Your task to perform on an android device: What's the weather today? Image 0: 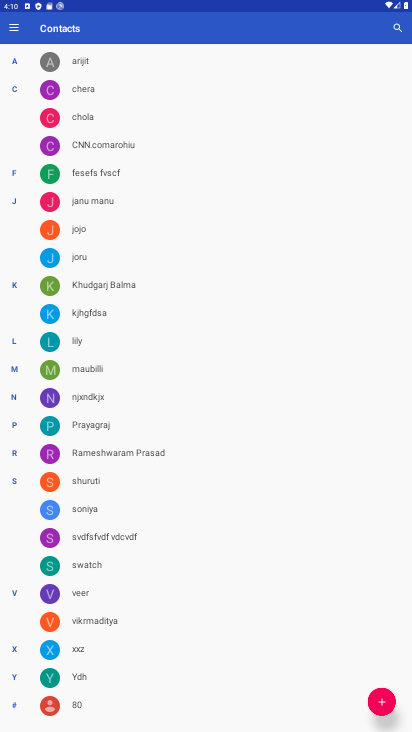
Step 0: press home button
Your task to perform on an android device: What's the weather today? Image 1: 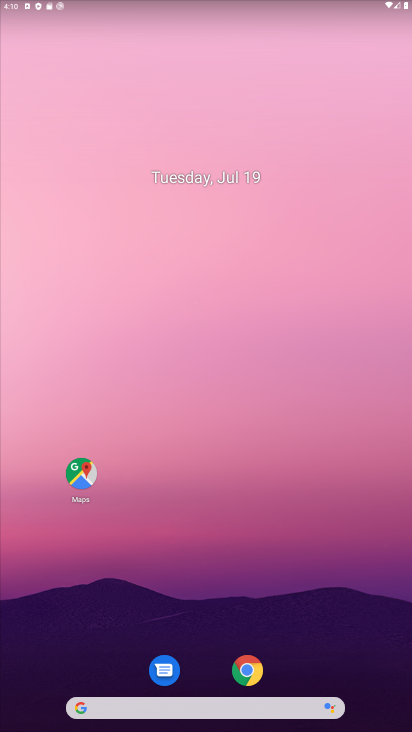
Step 1: drag from (219, 703) to (264, 119)
Your task to perform on an android device: What's the weather today? Image 2: 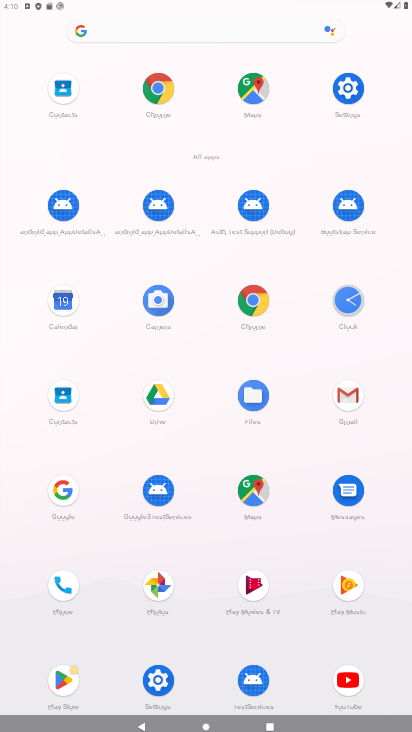
Step 2: click (244, 296)
Your task to perform on an android device: What's the weather today? Image 3: 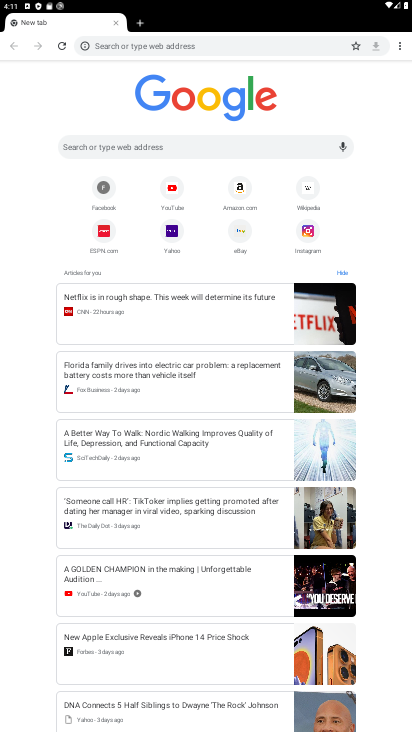
Step 3: click (223, 42)
Your task to perform on an android device: What's the weather today? Image 4: 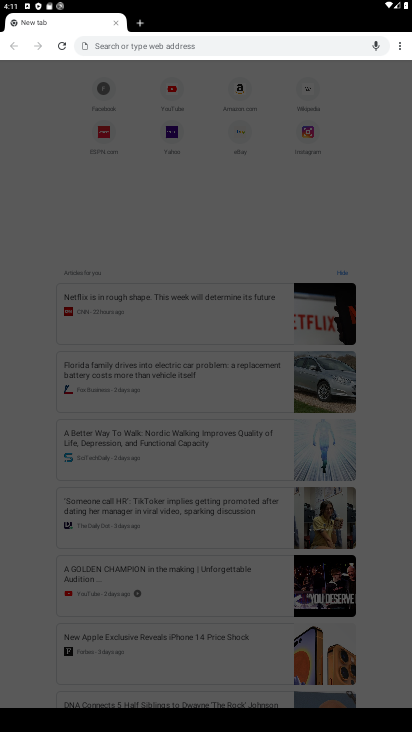
Step 4: type "weather today"
Your task to perform on an android device: What's the weather today? Image 5: 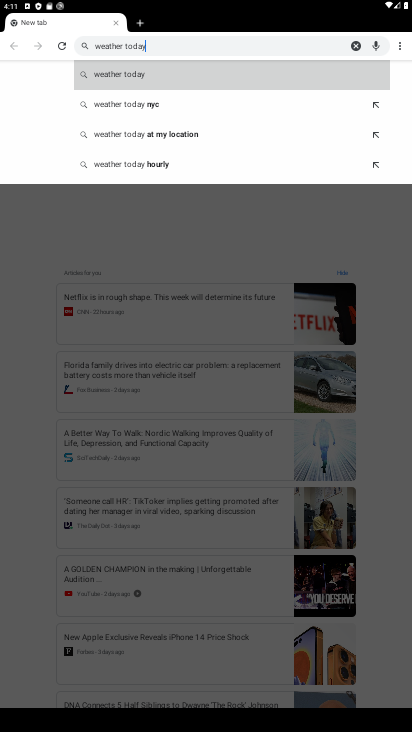
Step 5: click (142, 75)
Your task to perform on an android device: What's the weather today? Image 6: 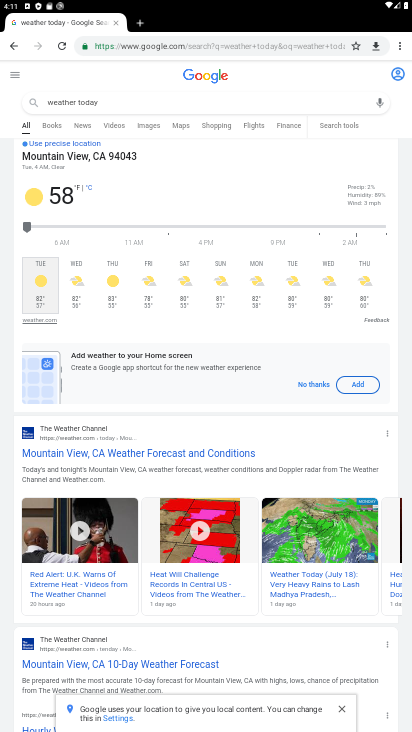
Step 6: task complete